Your task to perform on an android device: What's on my calendar today? Image 0: 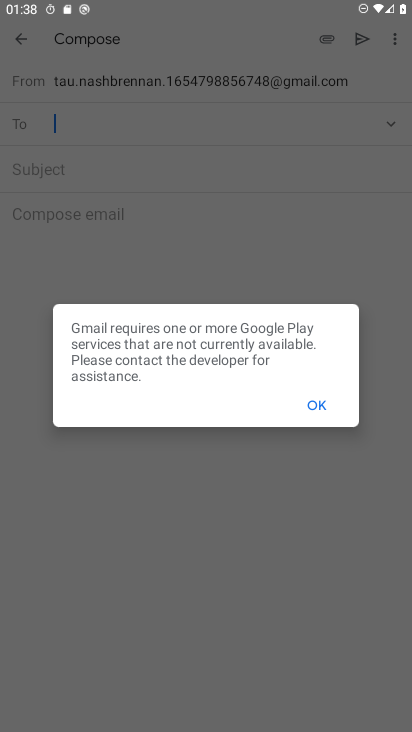
Step 0: press home button
Your task to perform on an android device: What's on my calendar today? Image 1: 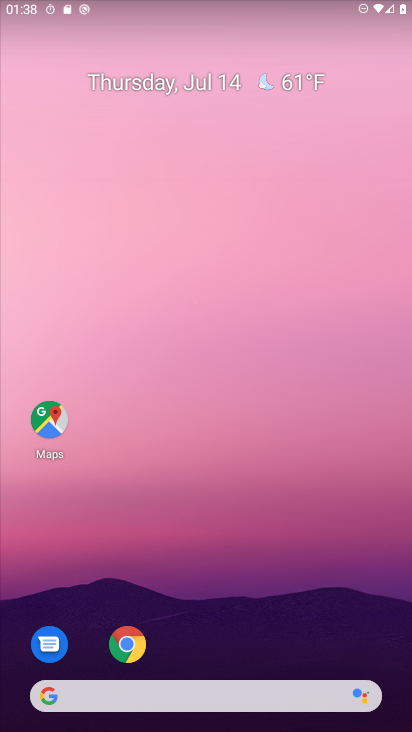
Step 1: drag from (279, 598) to (264, 75)
Your task to perform on an android device: What's on my calendar today? Image 2: 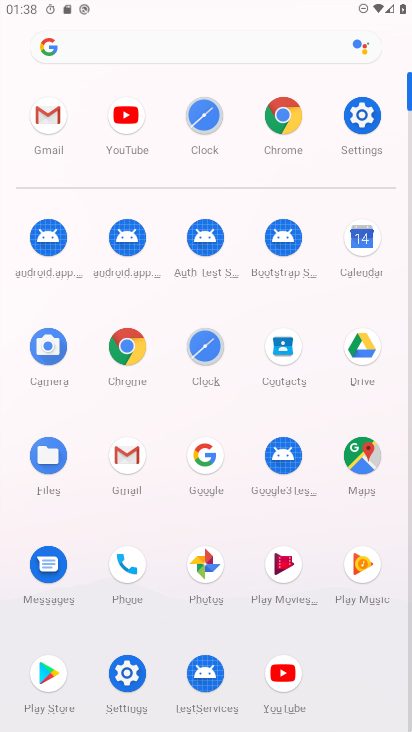
Step 2: click (364, 242)
Your task to perform on an android device: What's on my calendar today? Image 3: 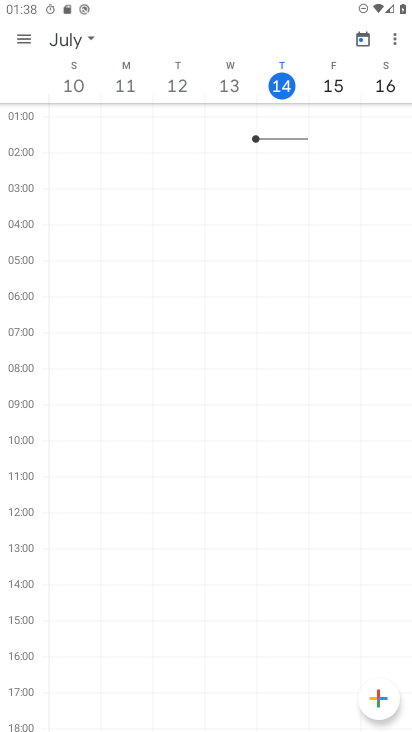
Step 3: task complete